Your task to perform on an android device: check out phone information Image 0: 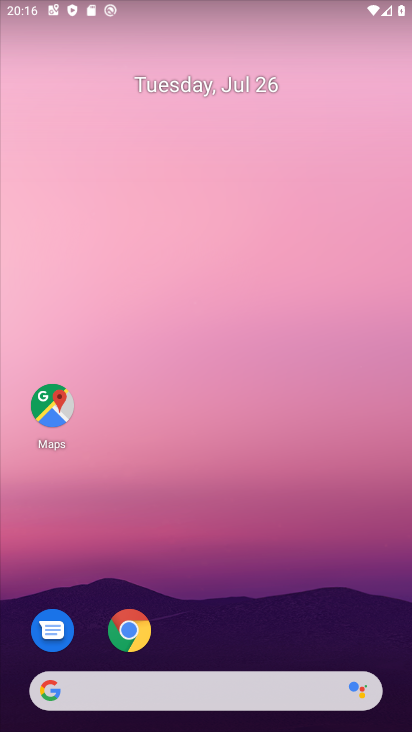
Step 0: press home button
Your task to perform on an android device: check out phone information Image 1: 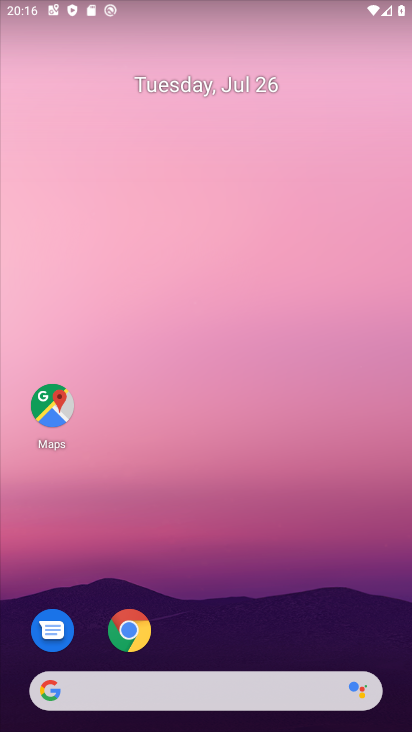
Step 1: drag from (329, 574) to (355, 108)
Your task to perform on an android device: check out phone information Image 2: 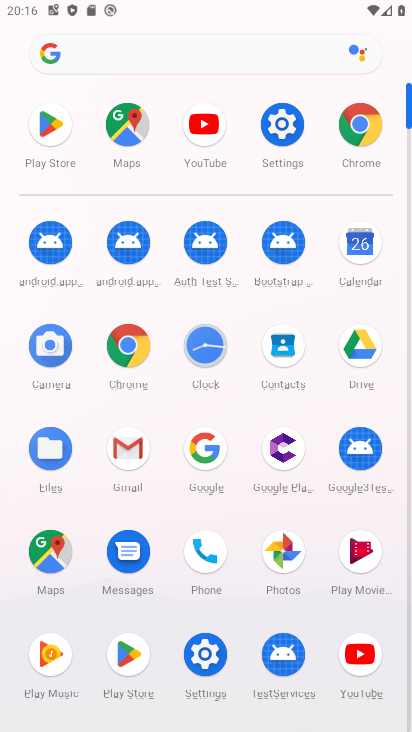
Step 2: click (205, 551)
Your task to perform on an android device: check out phone information Image 3: 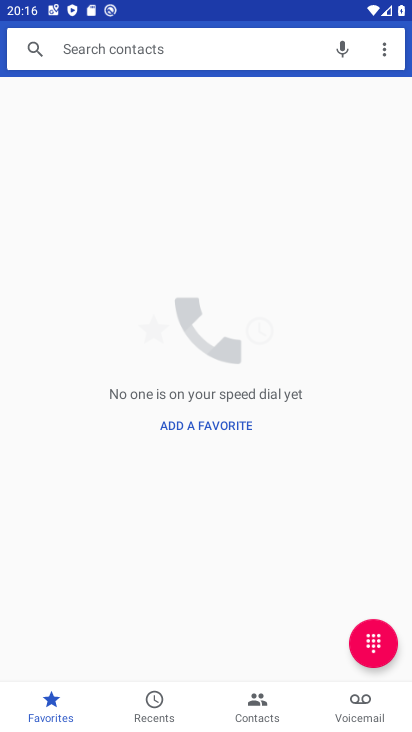
Step 3: task complete